Your task to perform on an android device: Do I have any events this weekend? Image 0: 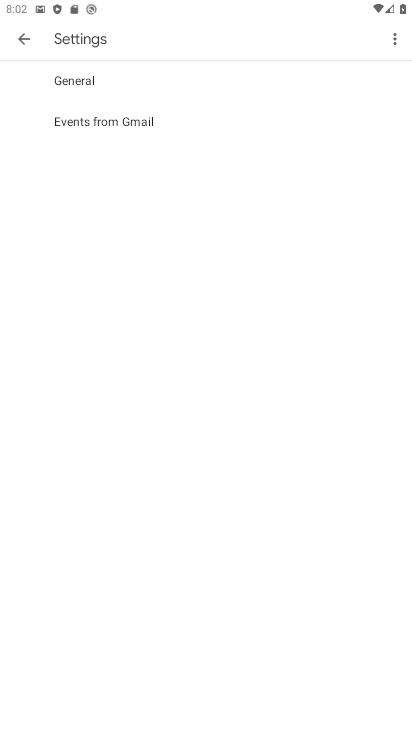
Step 0: press home button
Your task to perform on an android device: Do I have any events this weekend? Image 1: 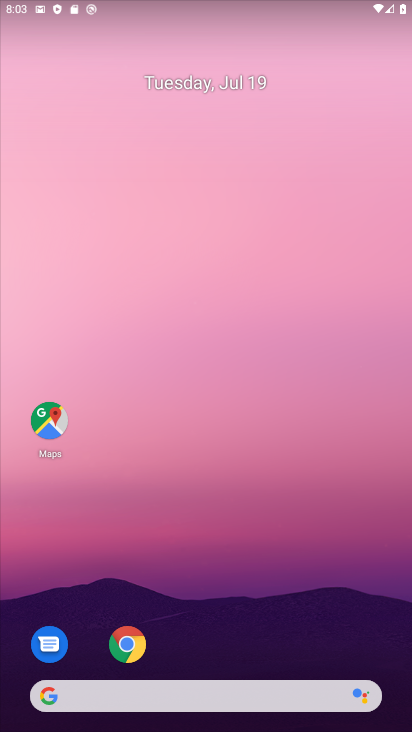
Step 1: drag from (191, 724) to (176, 264)
Your task to perform on an android device: Do I have any events this weekend? Image 2: 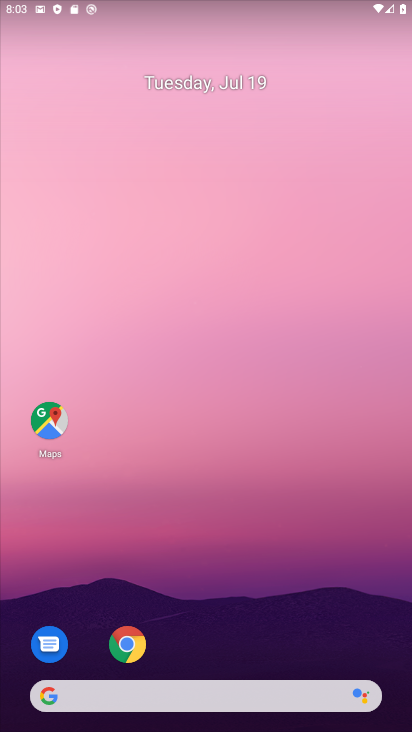
Step 2: drag from (225, 717) to (210, 165)
Your task to perform on an android device: Do I have any events this weekend? Image 3: 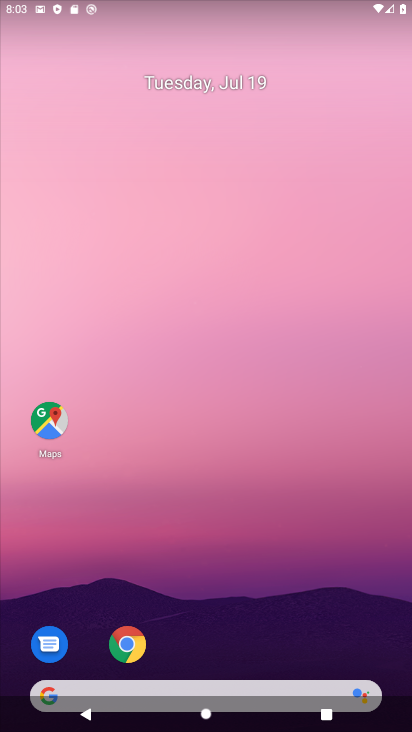
Step 3: drag from (266, 729) to (267, 282)
Your task to perform on an android device: Do I have any events this weekend? Image 4: 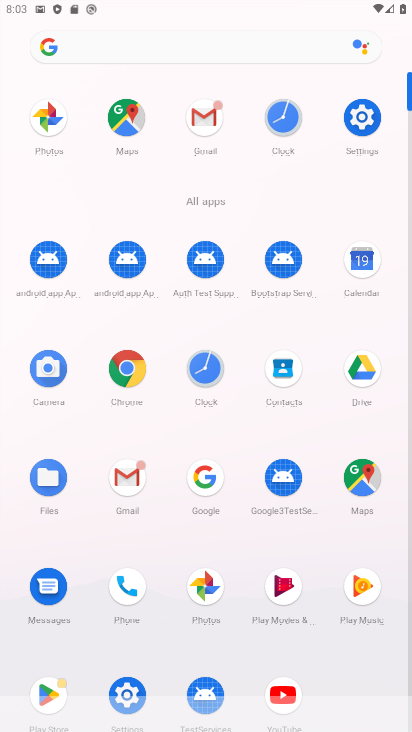
Step 4: click (361, 255)
Your task to perform on an android device: Do I have any events this weekend? Image 5: 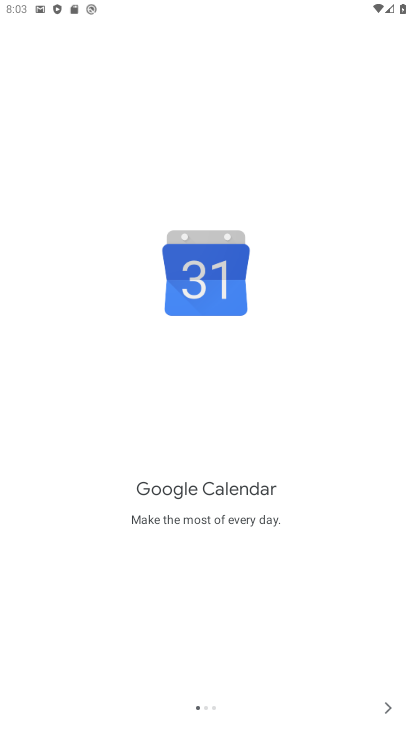
Step 5: click (386, 706)
Your task to perform on an android device: Do I have any events this weekend? Image 6: 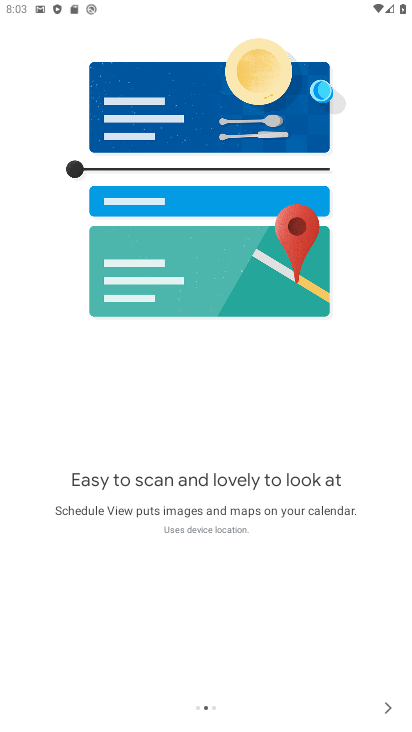
Step 6: click (391, 703)
Your task to perform on an android device: Do I have any events this weekend? Image 7: 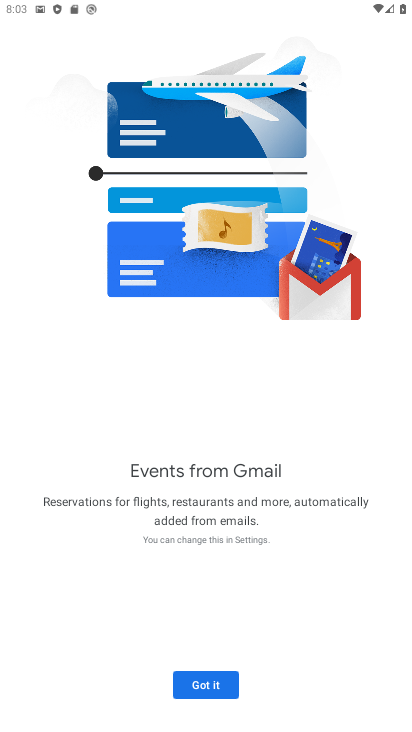
Step 7: click (202, 698)
Your task to perform on an android device: Do I have any events this weekend? Image 8: 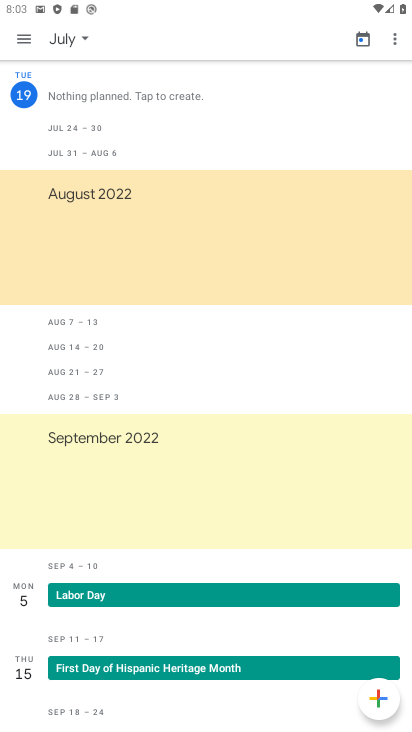
Step 8: click (83, 33)
Your task to perform on an android device: Do I have any events this weekend? Image 9: 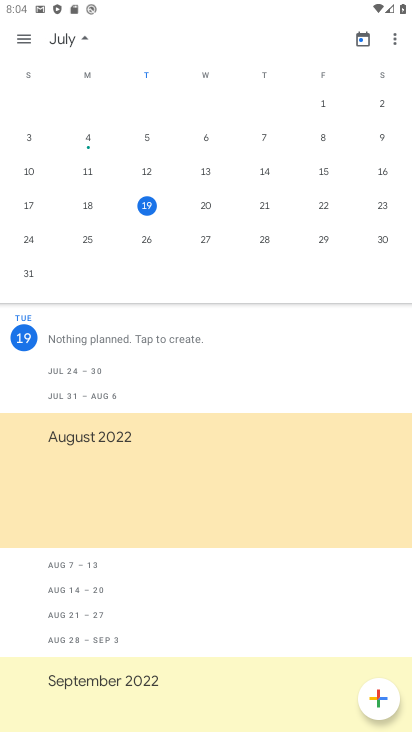
Step 9: click (375, 201)
Your task to perform on an android device: Do I have any events this weekend? Image 10: 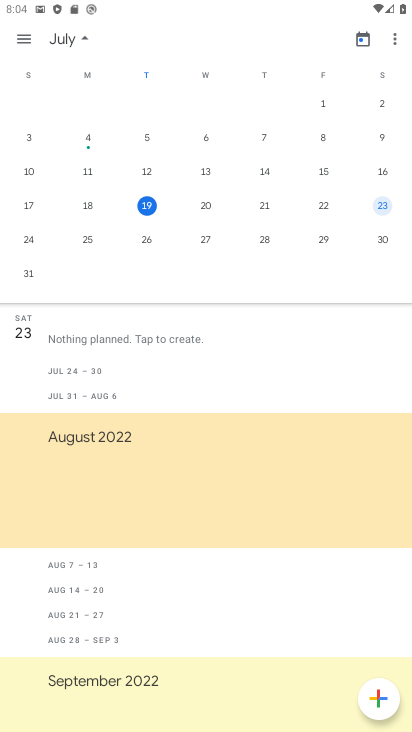
Step 10: click (377, 208)
Your task to perform on an android device: Do I have any events this weekend? Image 11: 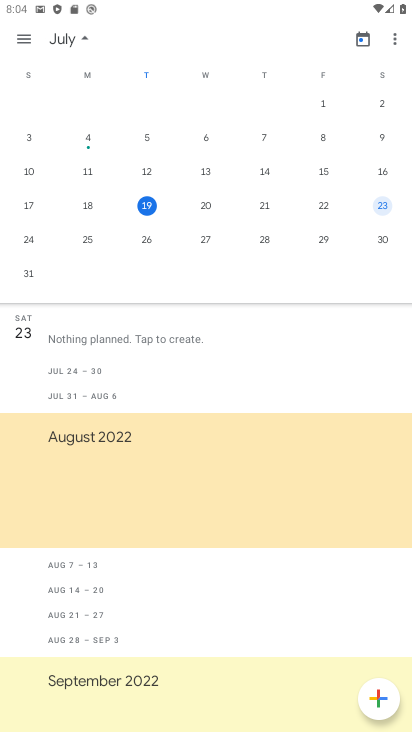
Step 11: click (25, 37)
Your task to perform on an android device: Do I have any events this weekend? Image 12: 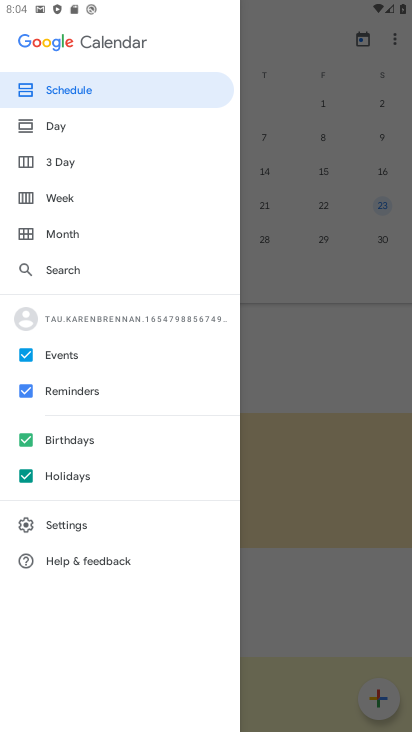
Step 12: click (31, 478)
Your task to perform on an android device: Do I have any events this weekend? Image 13: 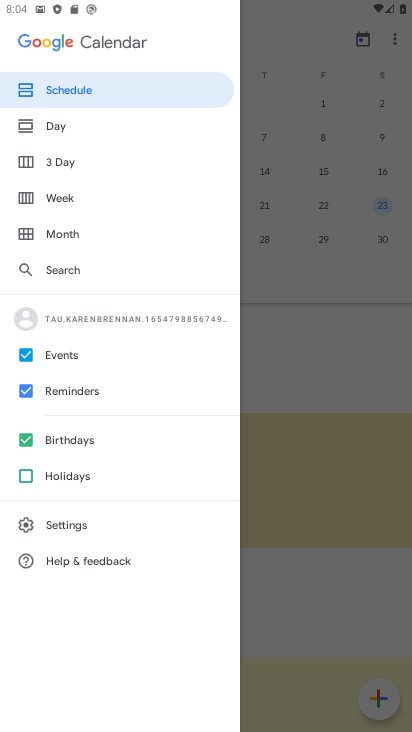
Step 13: click (33, 442)
Your task to perform on an android device: Do I have any events this weekend? Image 14: 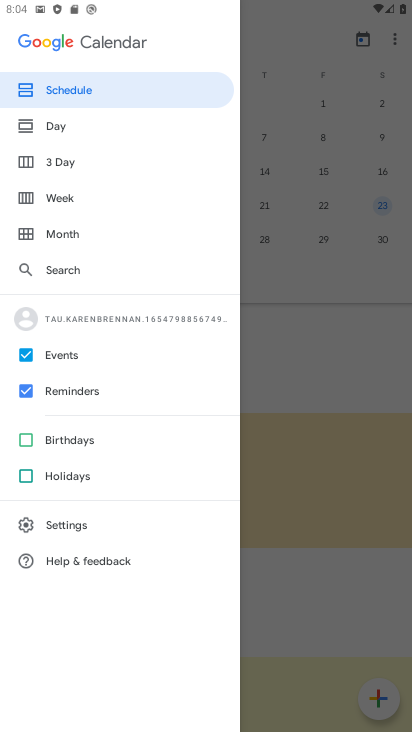
Step 14: click (23, 387)
Your task to perform on an android device: Do I have any events this weekend? Image 15: 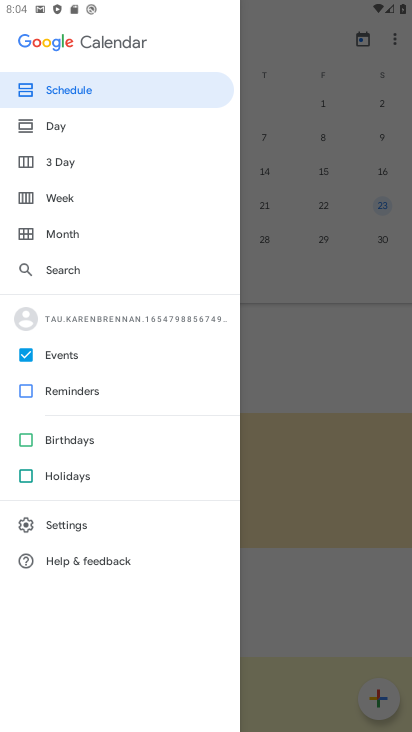
Step 15: click (30, 354)
Your task to perform on an android device: Do I have any events this weekend? Image 16: 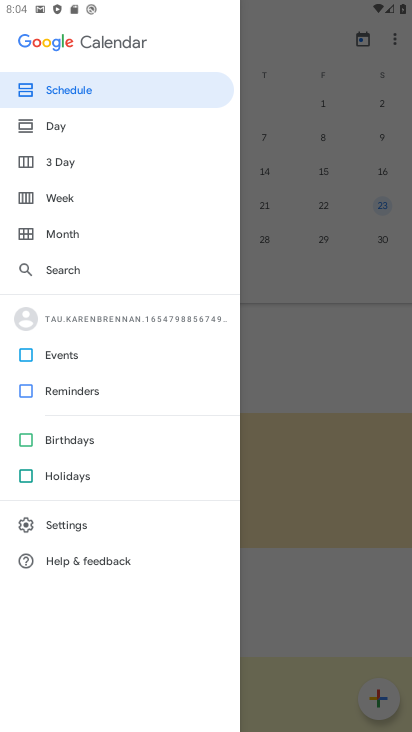
Step 16: click (381, 205)
Your task to perform on an android device: Do I have any events this weekend? Image 17: 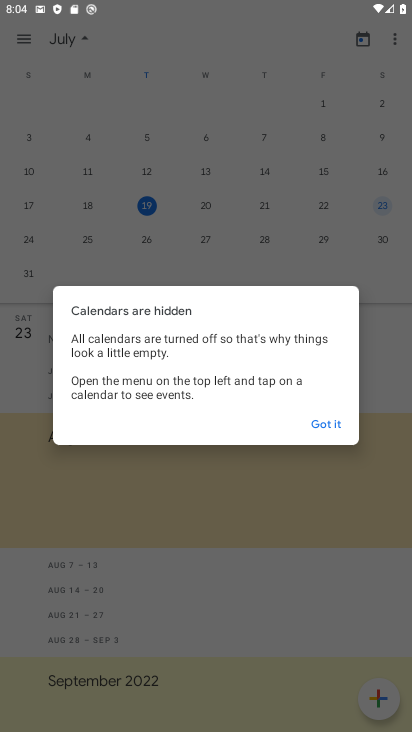
Step 17: click (317, 422)
Your task to perform on an android device: Do I have any events this weekend? Image 18: 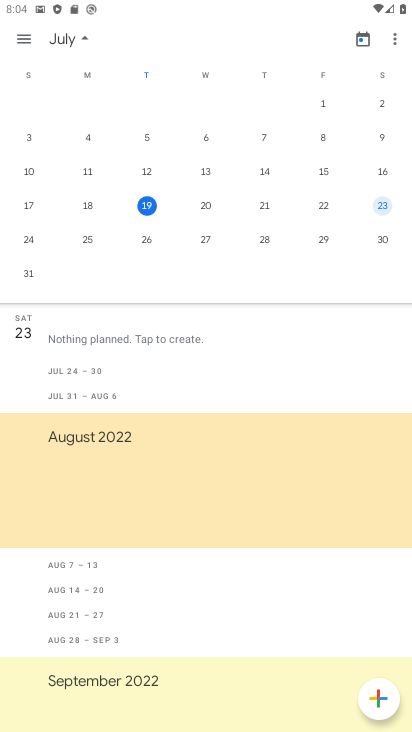
Step 18: task complete